Your task to perform on an android device: Go to display settings Image 0: 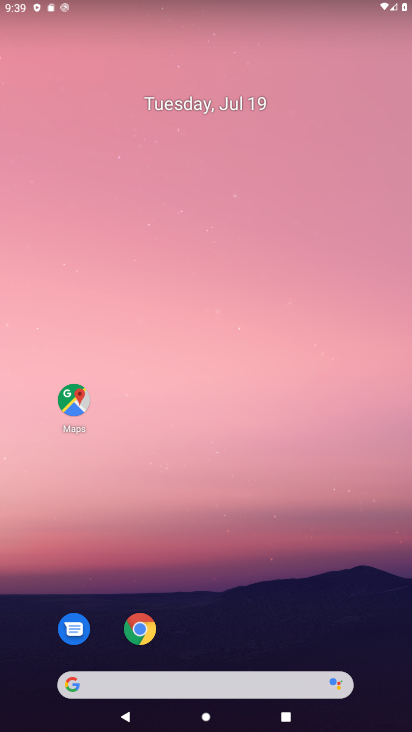
Step 0: drag from (200, 576) to (274, 7)
Your task to perform on an android device: Go to display settings Image 1: 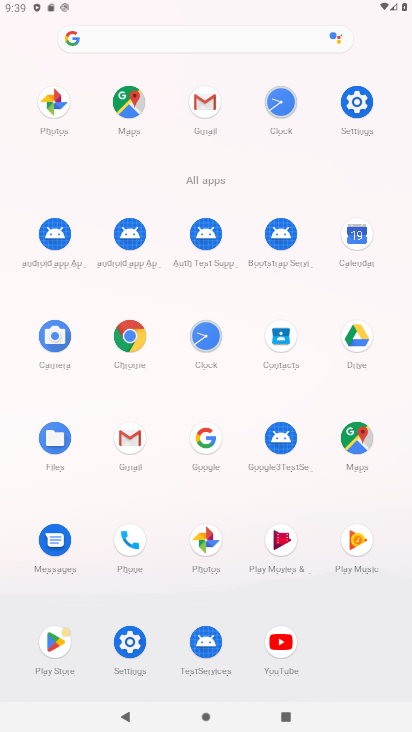
Step 1: click (123, 653)
Your task to perform on an android device: Go to display settings Image 2: 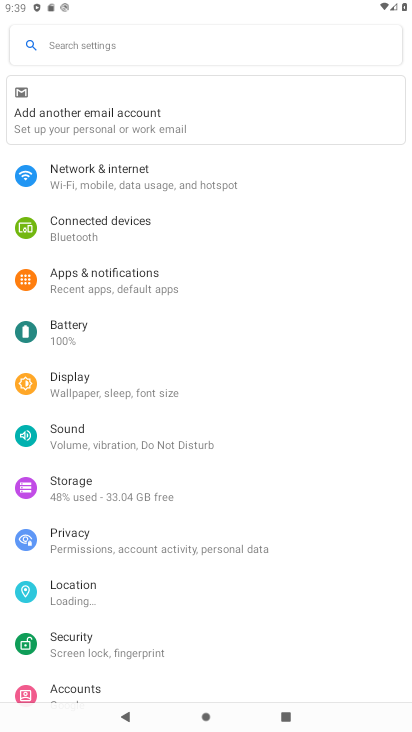
Step 2: click (83, 386)
Your task to perform on an android device: Go to display settings Image 3: 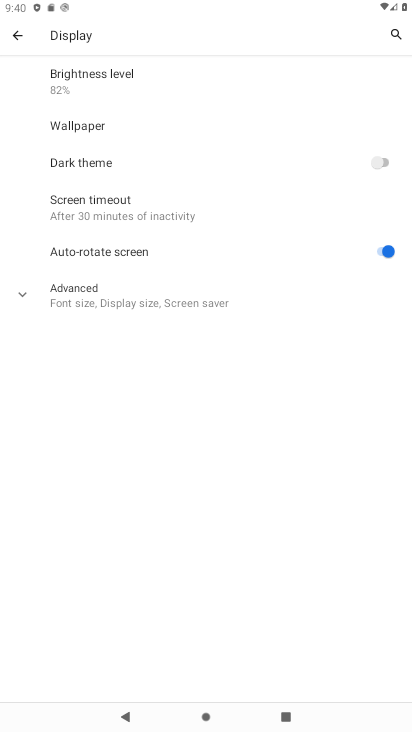
Step 3: task complete